Your task to perform on an android device: open wifi settings Image 0: 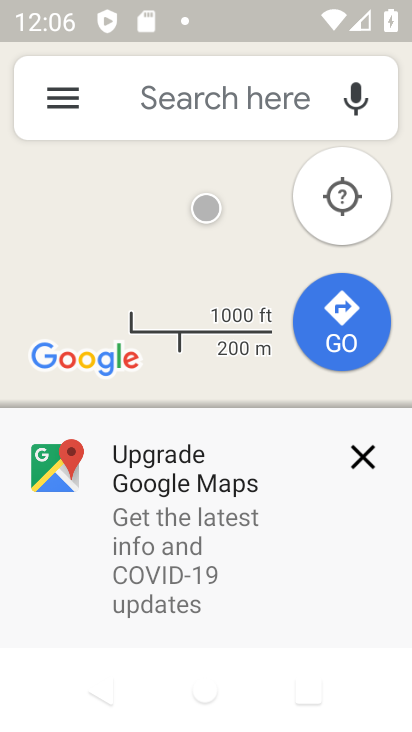
Step 0: drag from (296, 589) to (364, 8)
Your task to perform on an android device: open wifi settings Image 1: 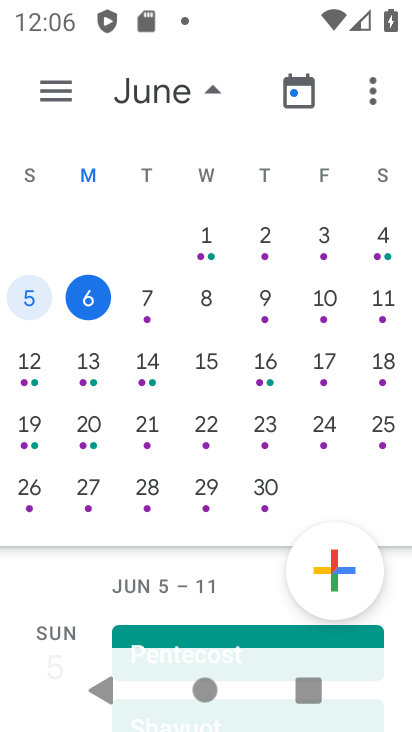
Step 1: press home button
Your task to perform on an android device: open wifi settings Image 2: 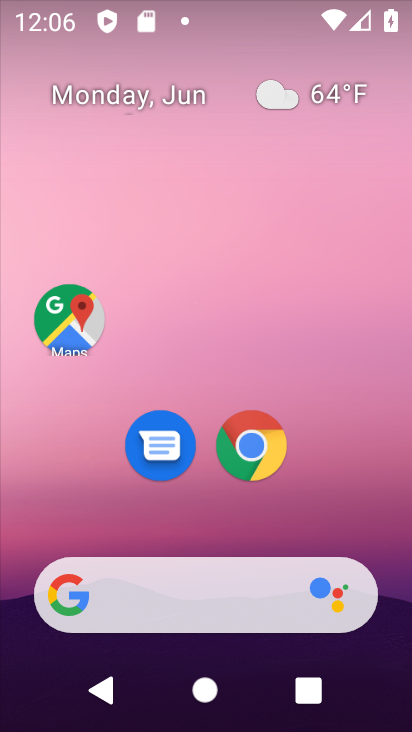
Step 2: drag from (289, 614) to (337, 101)
Your task to perform on an android device: open wifi settings Image 3: 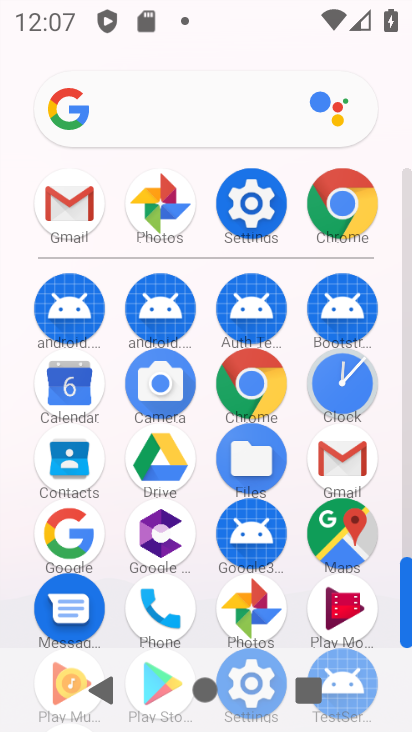
Step 3: click (263, 195)
Your task to perform on an android device: open wifi settings Image 4: 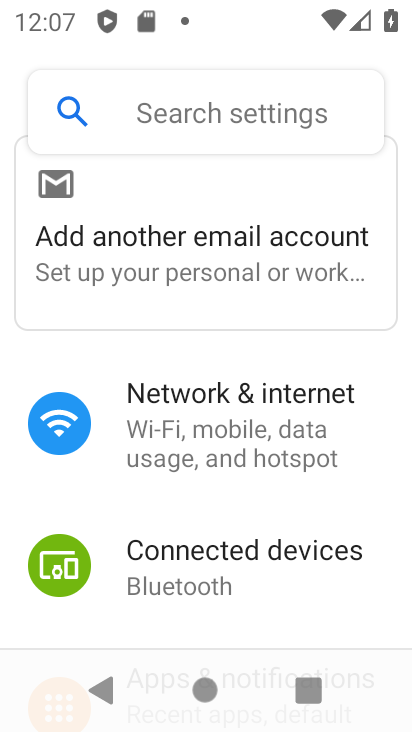
Step 4: click (238, 417)
Your task to perform on an android device: open wifi settings Image 5: 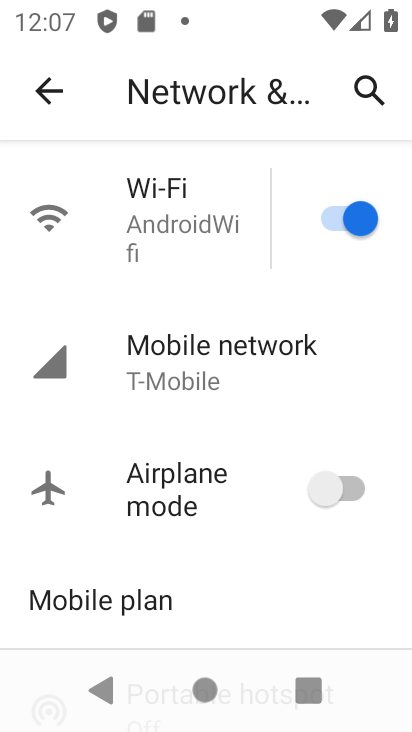
Step 5: click (174, 221)
Your task to perform on an android device: open wifi settings Image 6: 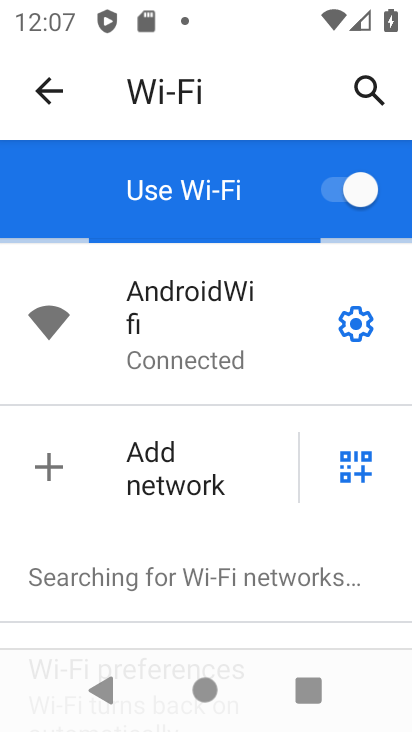
Step 6: task complete